Your task to perform on an android device: change the clock display to analog Image 0: 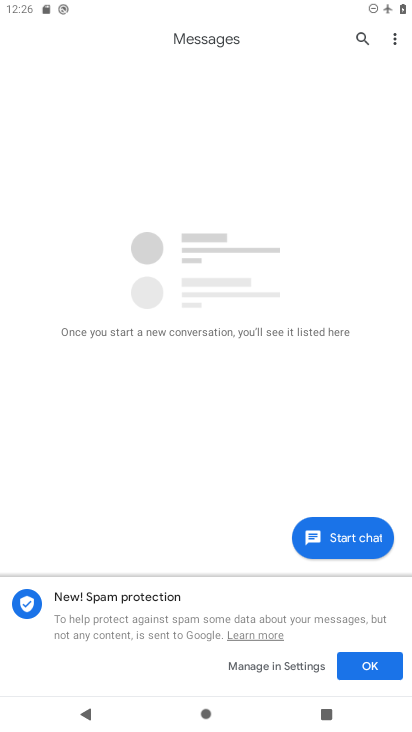
Step 0: press home button
Your task to perform on an android device: change the clock display to analog Image 1: 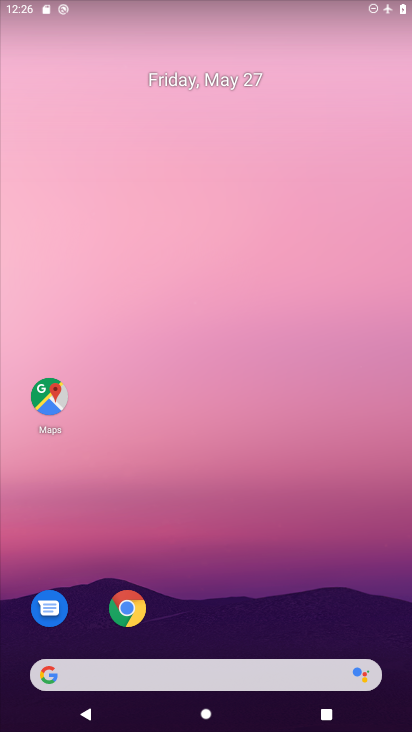
Step 1: drag from (196, 678) to (352, 121)
Your task to perform on an android device: change the clock display to analog Image 2: 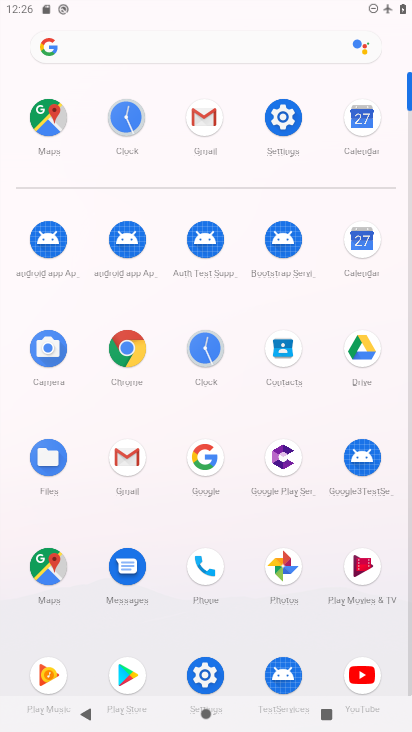
Step 2: click (118, 117)
Your task to perform on an android device: change the clock display to analog Image 3: 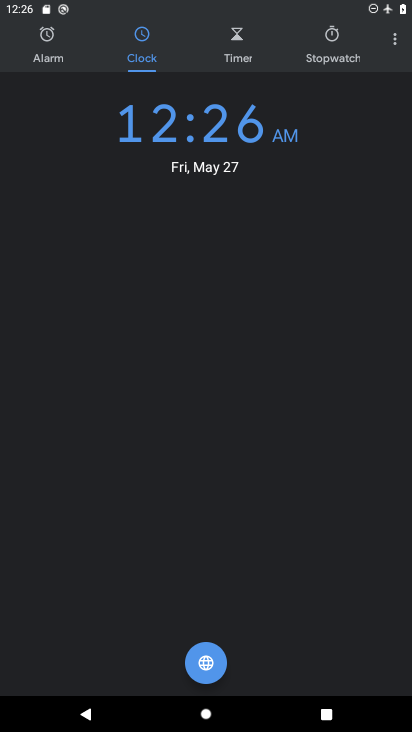
Step 3: click (396, 41)
Your task to perform on an android device: change the clock display to analog Image 4: 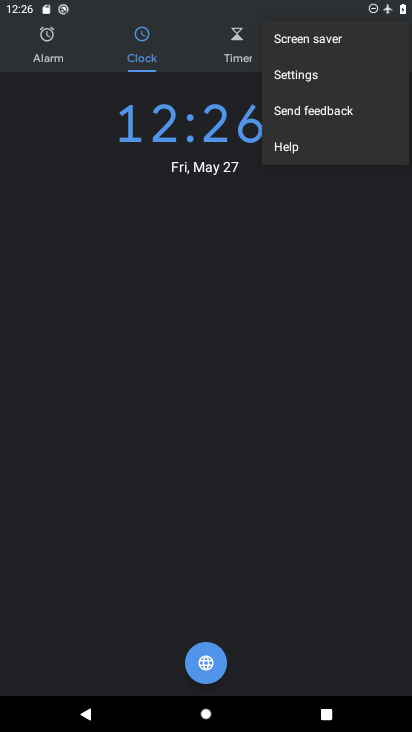
Step 4: click (336, 70)
Your task to perform on an android device: change the clock display to analog Image 5: 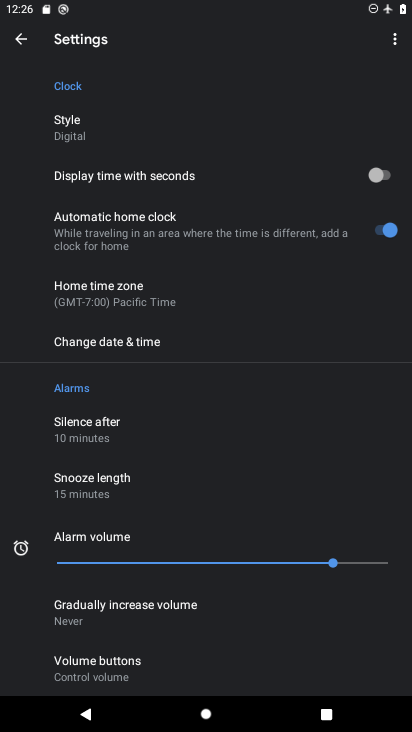
Step 5: click (77, 128)
Your task to perform on an android device: change the clock display to analog Image 6: 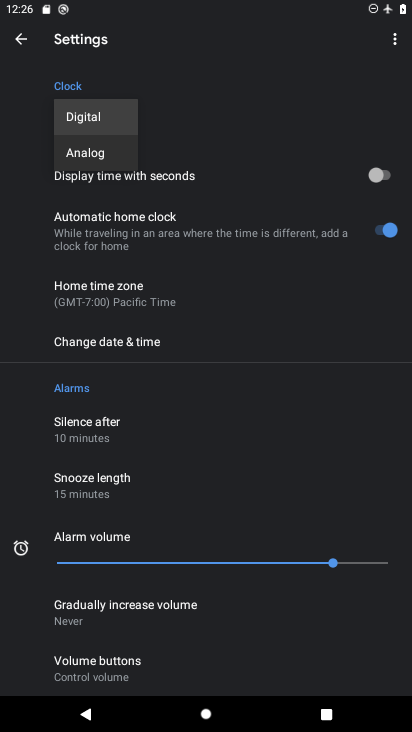
Step 6: click (96, 152)
Your task to perform on an android device: change the clock display to analog Image 7: 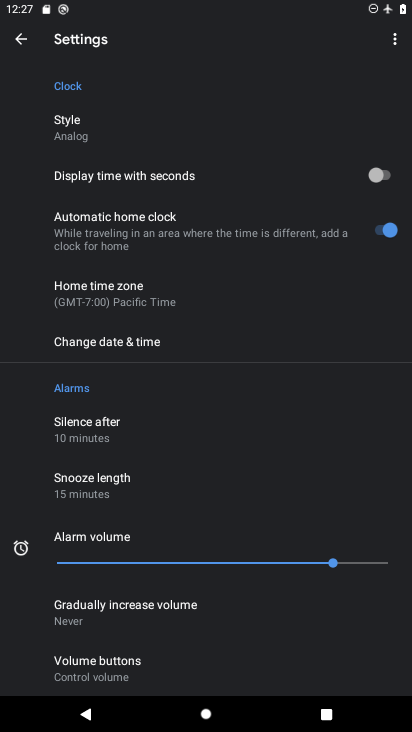
Step 7: task complete